Your task to perform on an android device: open wifi settings Image 0: 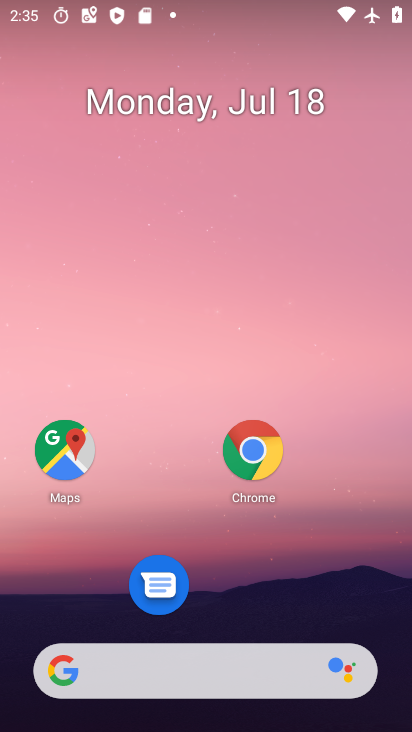
Step 0: drag from (224, 656) to (347, 0)
Your task to perform on an android device: open wifi settings Image 1: 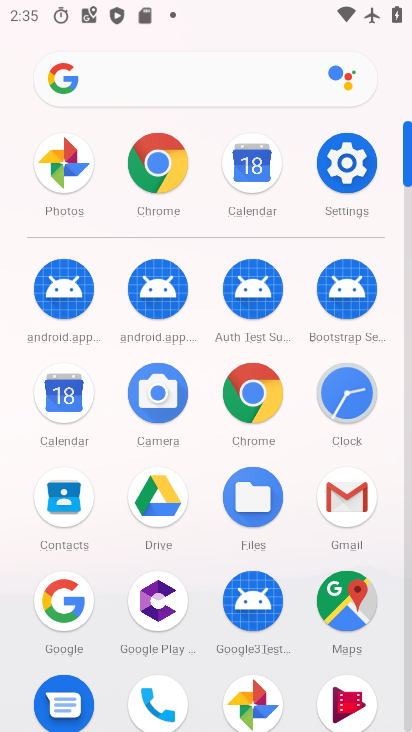
Step 1: click (364, 167)
Your task to perform on an android device: open wifi settings Image 2: 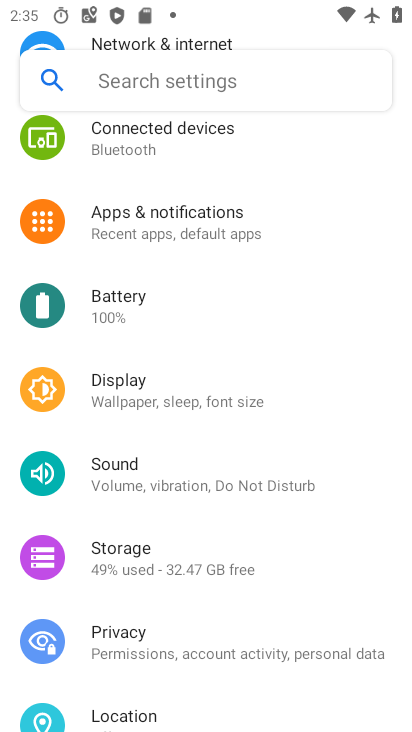
Step 2: drag from (268, 174) to (202, 683)
Your task to perform on an android device: open wifi settings Image 3: 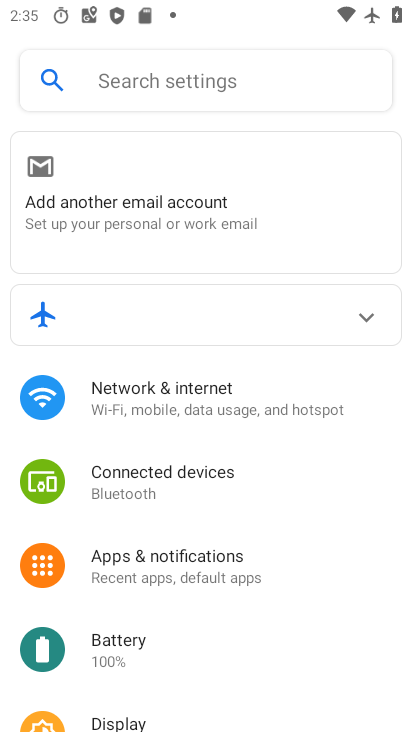
Step 3: click (191, 398)
Your task to perform on an android device: open wifi settings Image 4: 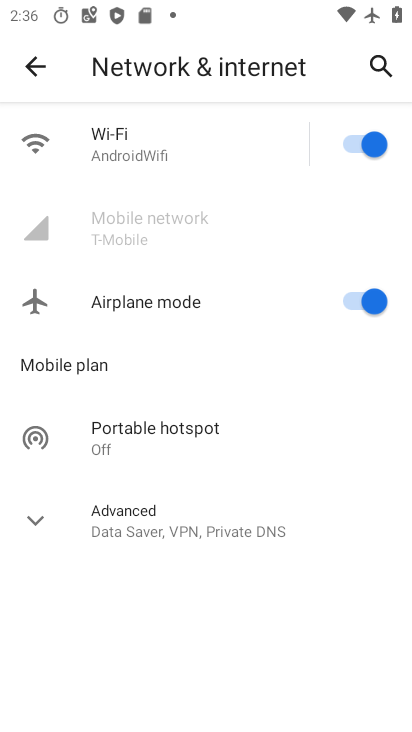
Step 4: click (137, 151)
Your task to perform on an android device: open wifi settings Image 5: 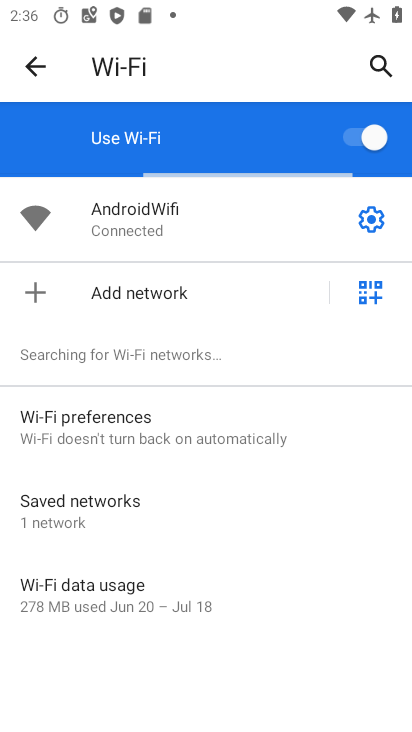
Step 5: task complete